Your task to perform on an android device: check out phone information Image 0: 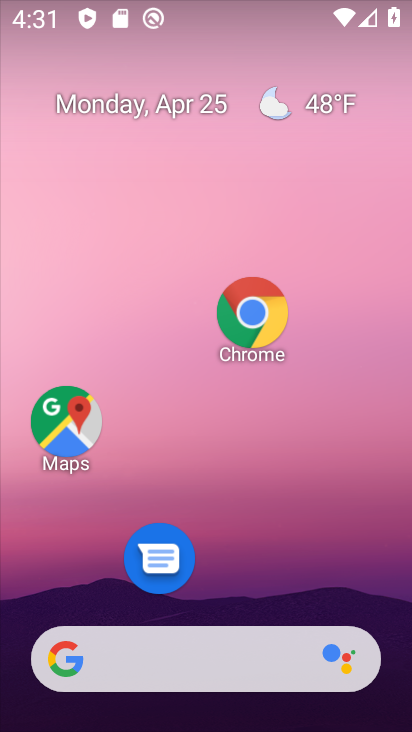
Step 0: drag from (354, 492) to (407, 85)
Your task to perform on an android device: check out phone information Image 1: 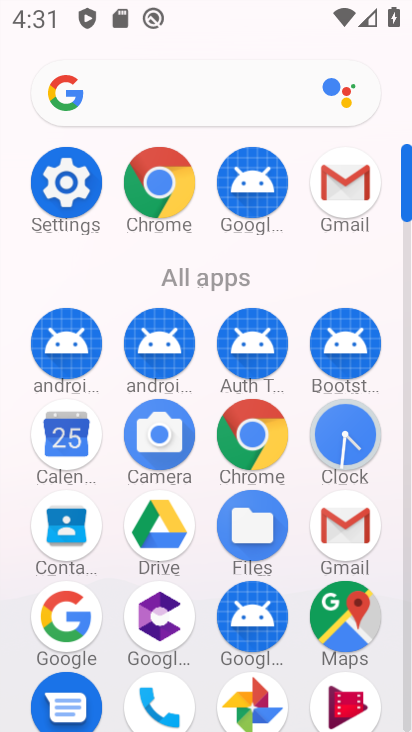
Step 1: click (55, 184)
Your task to perform on an android device: check out phone information Image 2: 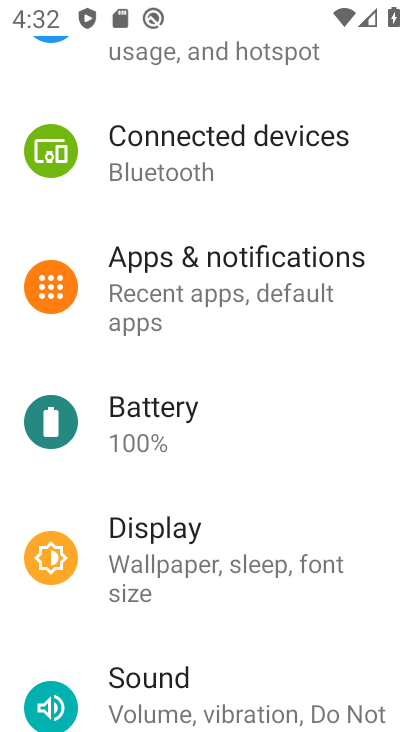
Step 2: drag from (239, 533) to (281, 167)
Your task to perform on an android device: check out phone information Image 3: 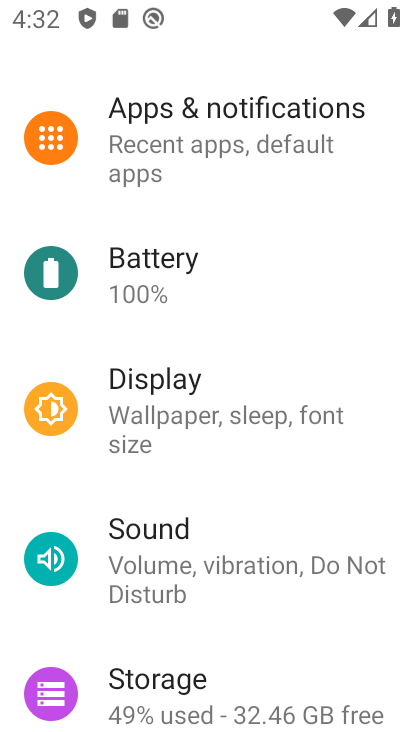
Step 3: drag from (269, 625) to (263, 164)
Your task to perform on an android device: check out phone information Image 4: 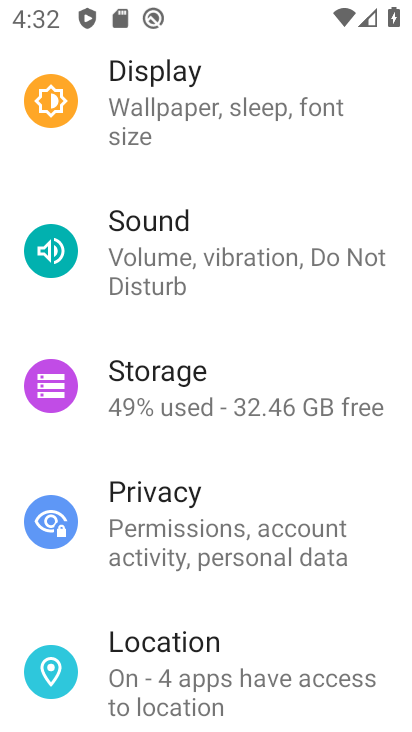
Step 4: drag from (238, 569) to (333, 142)
Your task to perform on an android device: check out phone information Image 5: 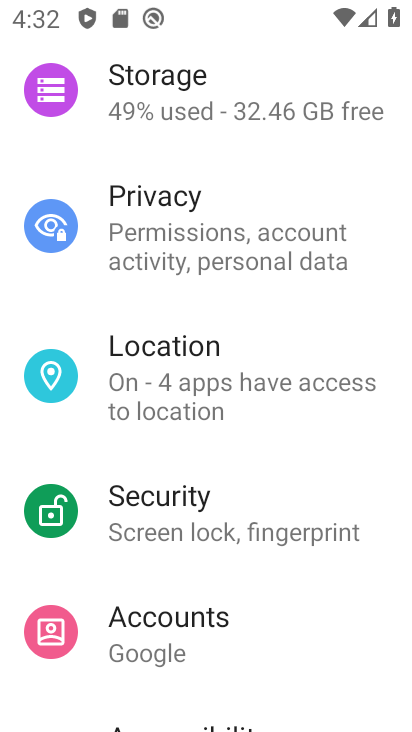
Step 5: drag from (268, 636) to (344, 152)
Your task to perform on an android device: check out phone information Image 6: 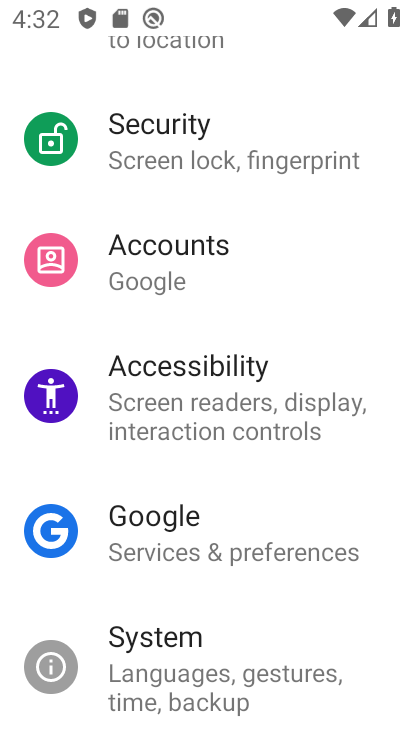
Step 6: drag from (233, 581) to (245, 63)
Your task to perform on an android device: check out phone information Image 7: 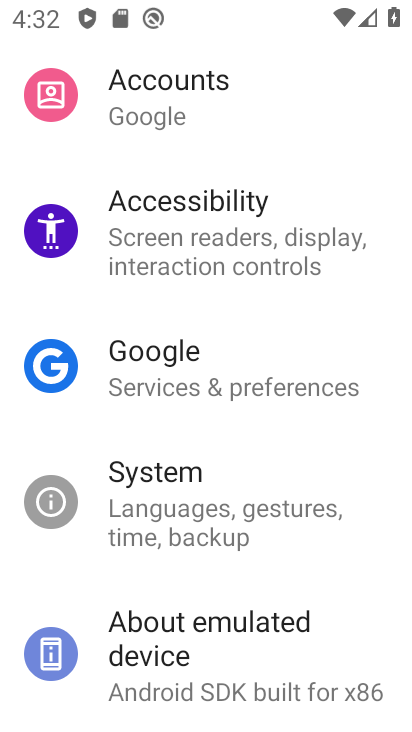
Step 7: click (207, 670)
Your task to perform on an android device: check out phone information Image 8: 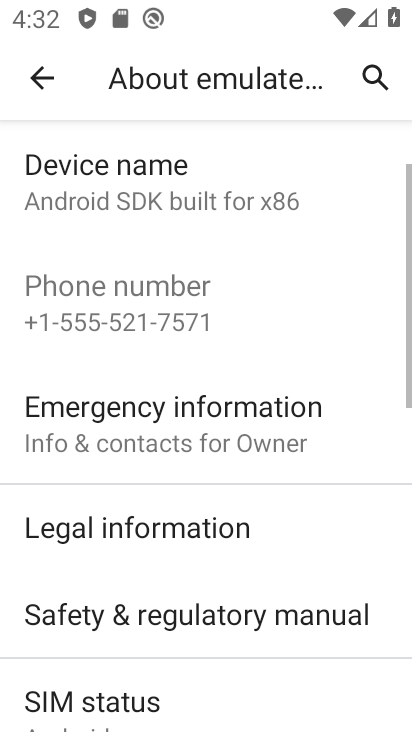
Step 8: task complete